Your task to perform on an android device: remove spam from my inbox in the gmail app Image 0: 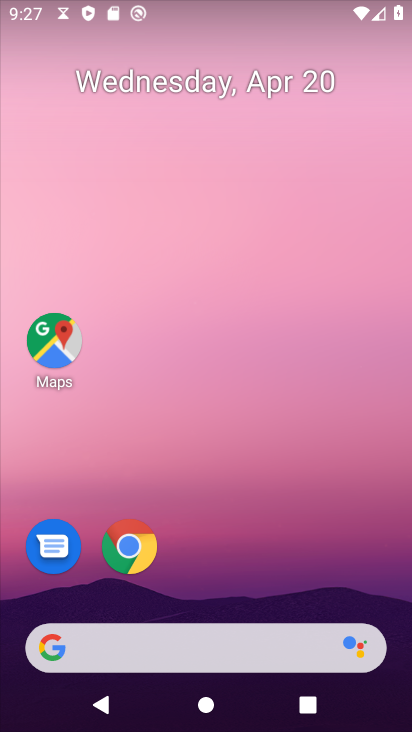
Step 0: drag from (244, 544) to (233, 0)
Your task to perform on an android device: remove spam from my inbox in the gmail app Image 1: 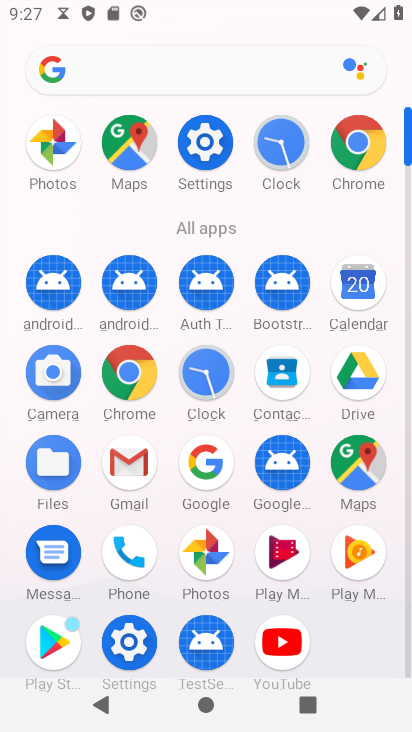
Step 1: click (128, 513)
Your task to perform on an android device: remove spam from my inbox in the gmail app Image 2: 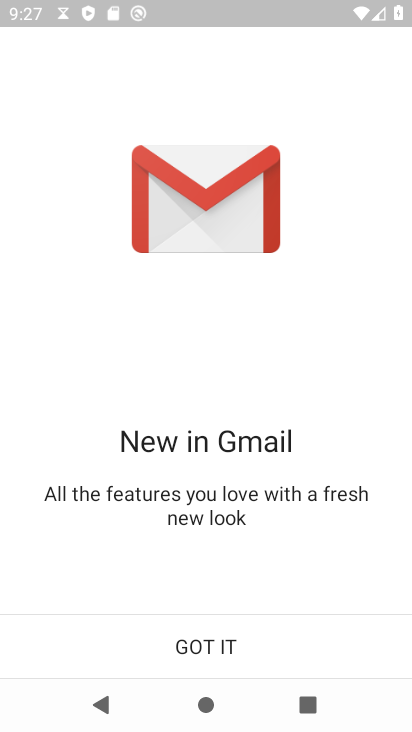
Step 2: click (185, 641)
Your task to perform on an android device: remove spam from my inbox in the gmail app Image 3: 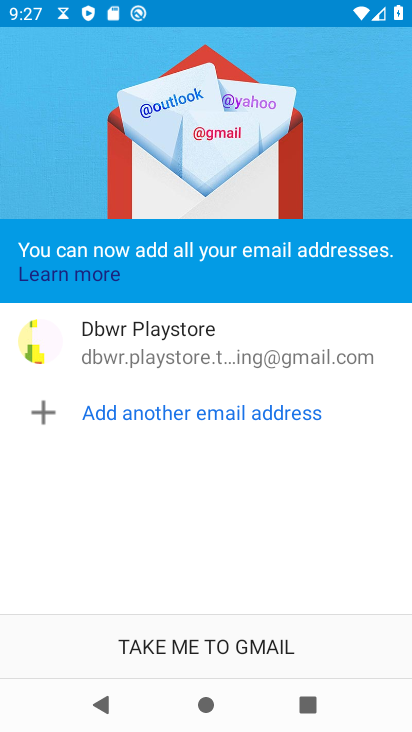
Step 3: click (187, 638)
Your task to perform on an android device: remove spam from my inbox in the gmail app Image 4: 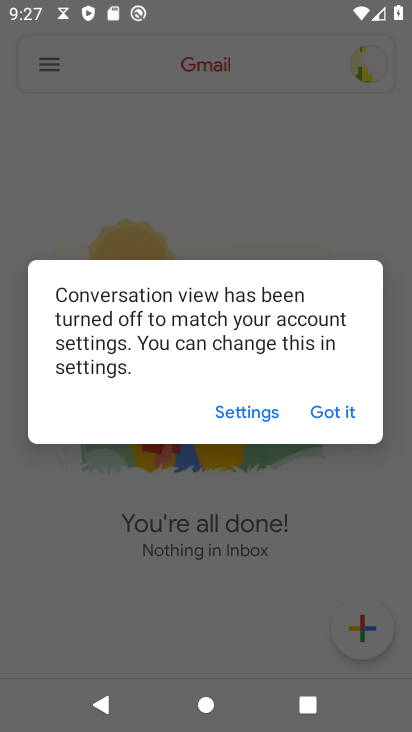
Step 4: click (337, 406)
Your task to perform on an android device: remove spam from my inbox in the gmail app Image 5: 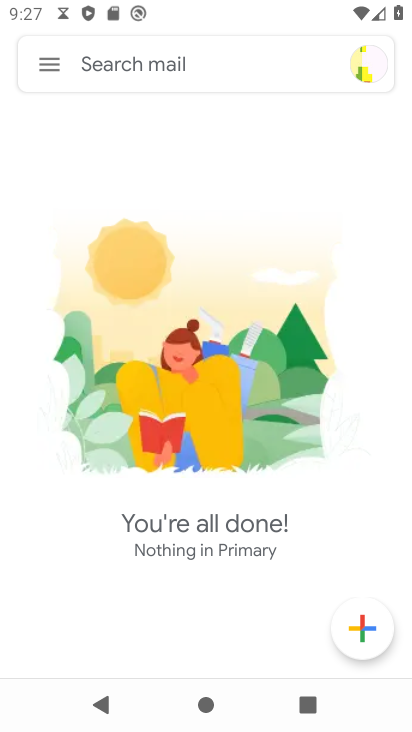
Step 5: click (45, 60)
Your task to perform on an android device: remove spam from my inbox in the gmail app Image 6: 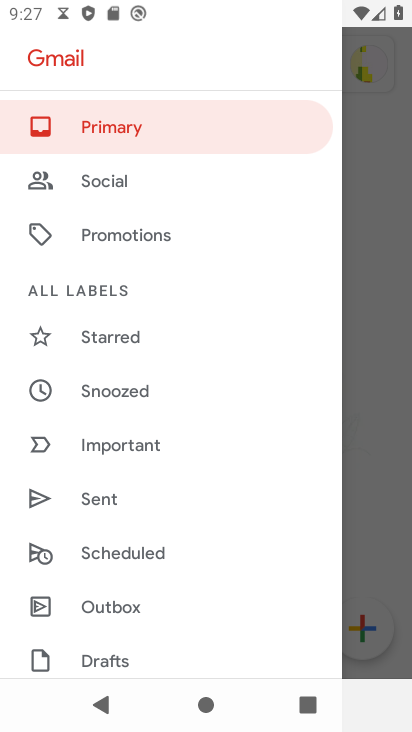
Step 6: drag from (146, 643) to (166, 276)
Your task to perform on an android device: remove spam from my inbox in the gmail app Image 7: 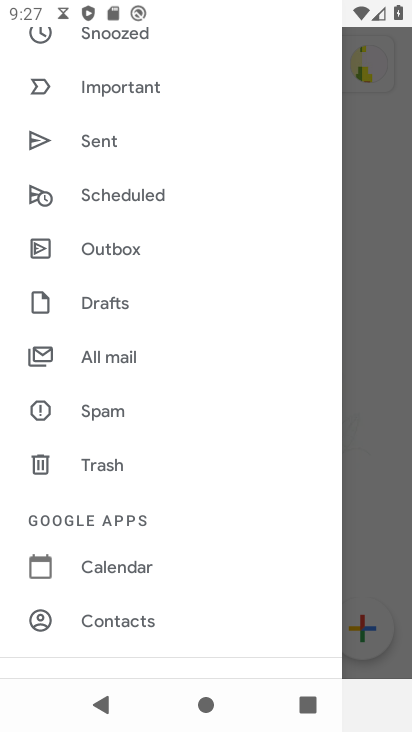
Step 7: click (113, 415)
Your task to perform on an android device: remove spam from my inbox in the gmail app Image 8: 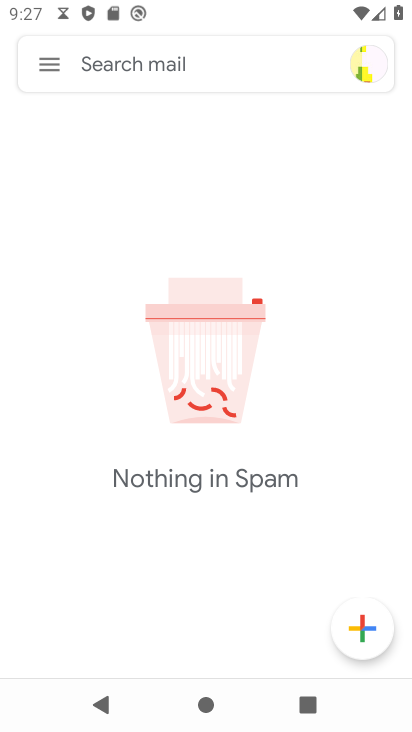
Step 8: task complete